Your task to perform on an android device: Go to Google maps Image 0: 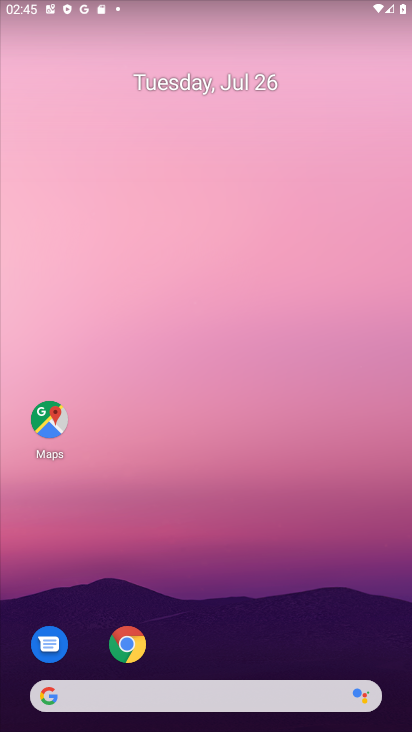
Step 0: drag from (181, 669) to (171, 120)
Your task to perform on an android device: Go to Google maps Image 1: 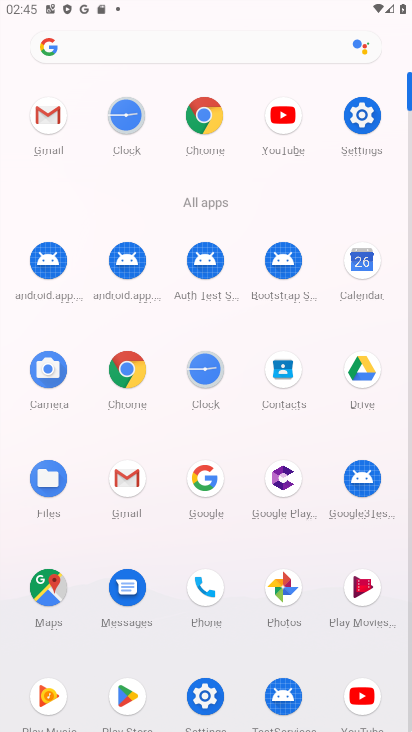
Step 1: click (47, 601)
Your task to perform on an android device: Go to Google maps Image 2: 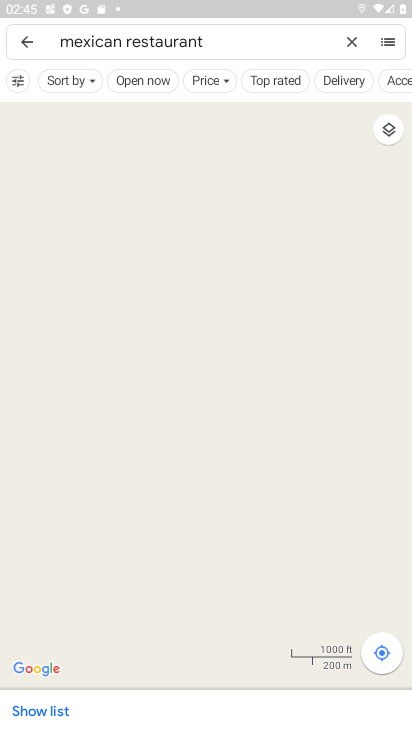
Step 2: click (23, 36)
Your task to perform on an android device: Go to Google maps Image 3: 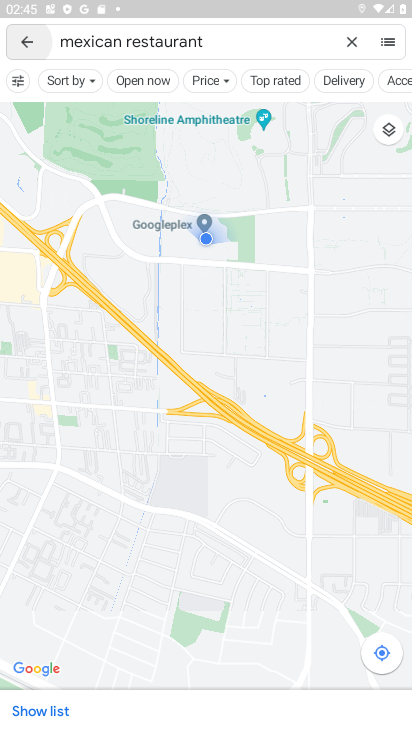
Step 3: task complete